Your task to perform on an android device: add a label to a message in the gmail app Image 0: 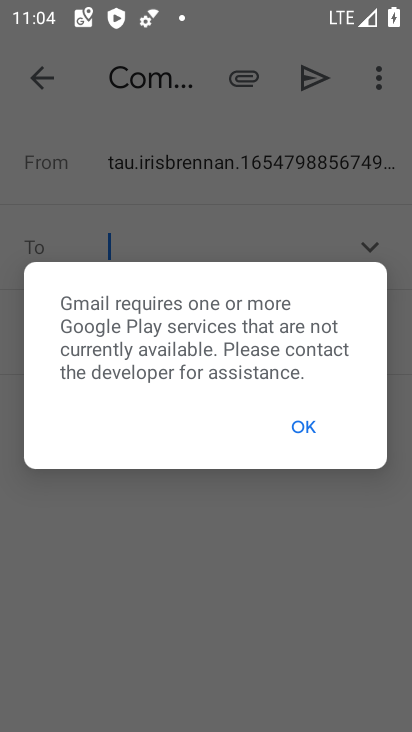
Step 0: press back button
Your task to perform on an android device: add a label to a message in the gmail app Image 1: 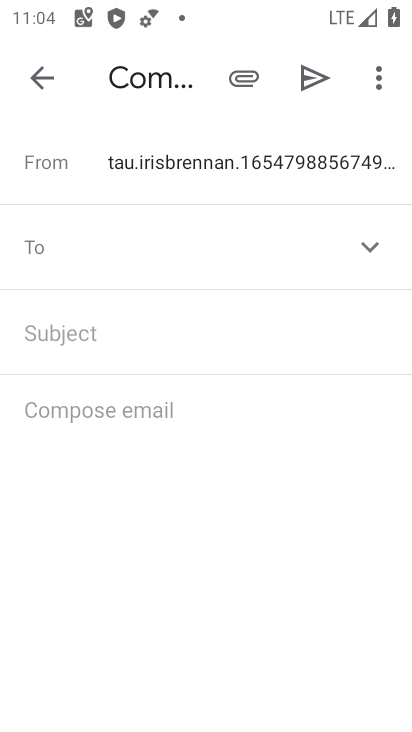
Step 1: press home button
Your task to perform on an android device: add a label to a message in the gmail app Image 2: 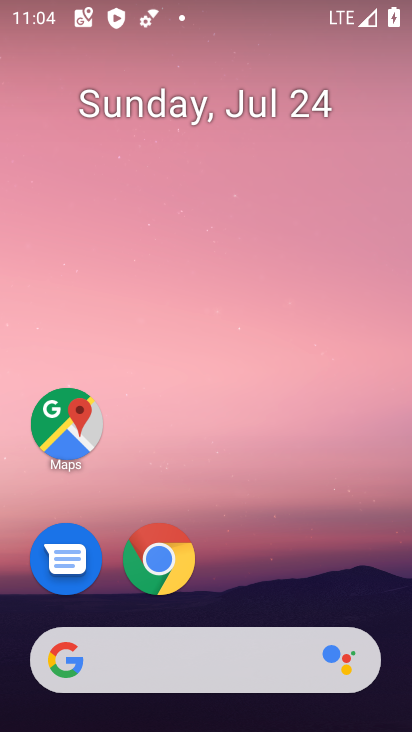
Step 2: drag from (255, 571) to (335, 8)
Your task to perform on an android device: add a label to a message in the gmail app Image 3: 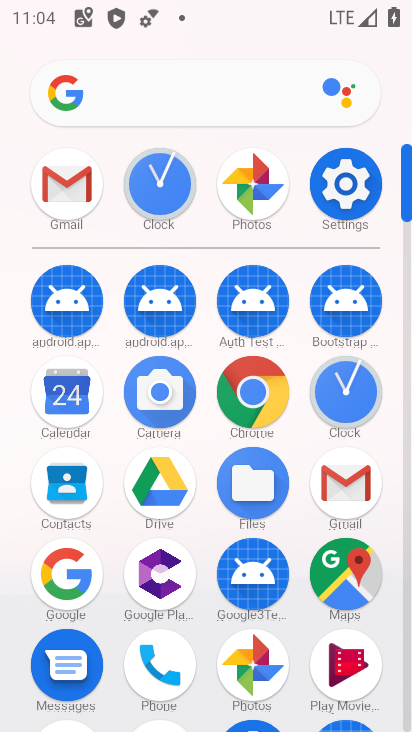
Step 3: click (83, 177)
Your task to perform on an android device: add a label to a message in the gmail app Image 4: 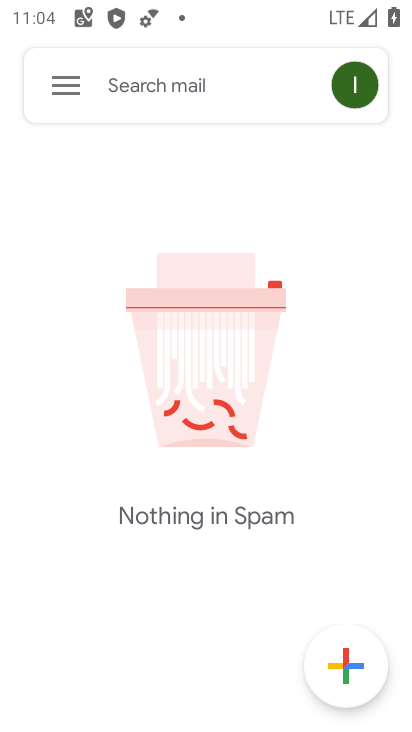
Step 4: click (53, 71)
Your task to perform on an android device: add a label to a message in the gmail app Image 5: 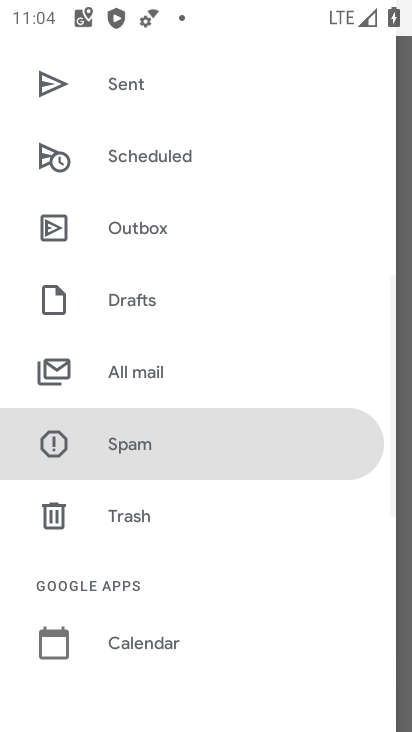
Step 5: click (145, 377)
Your task to perform on an android device: add a label to a message in the gmail app Image 6: 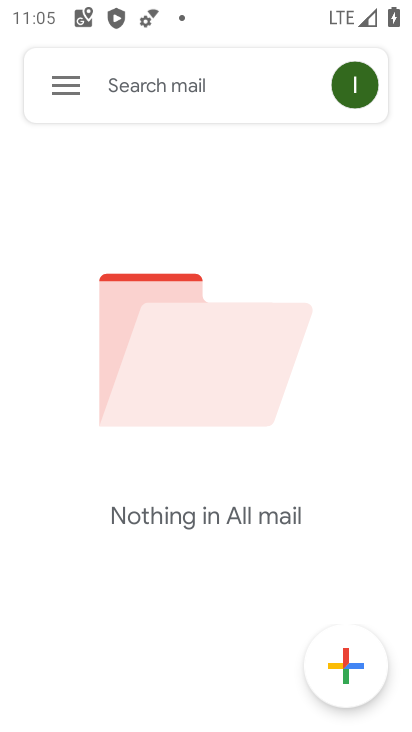
Step 6: task complete